Your task to perform on an android device: set the timer Image 0: 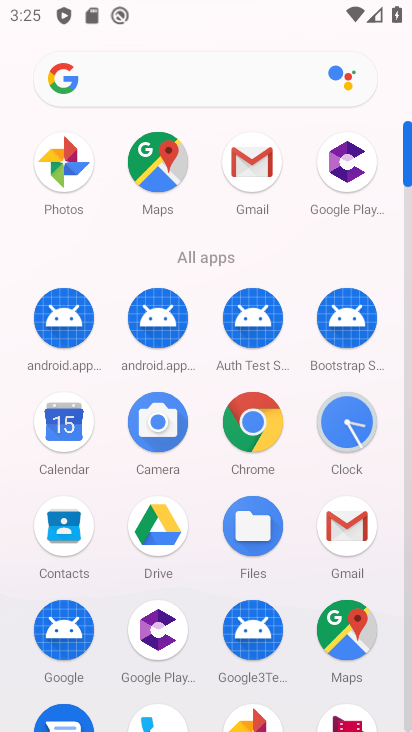
Step 0: click (357, 415)
Your task to perform on an android device: set the timer Image 1: 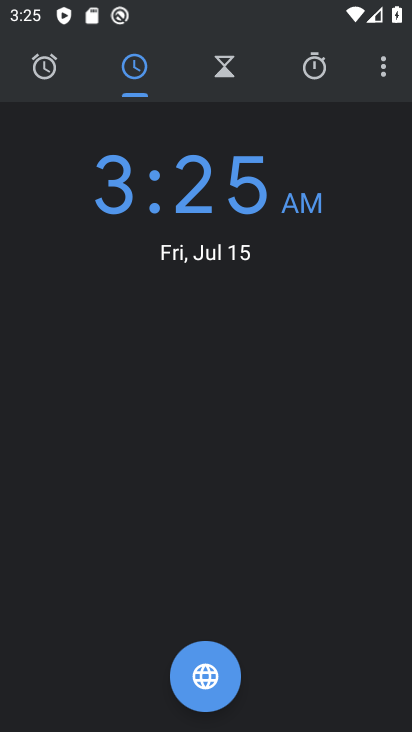
Step 1: click (233, 78)
Your task to perform on an android device: set the timer Image 2: 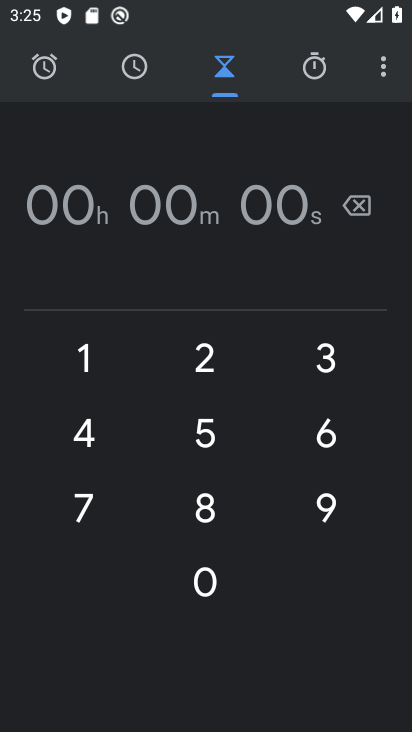
Step 2: click (89, 361)
Your task to perform on an android device: set the timer Image 3: 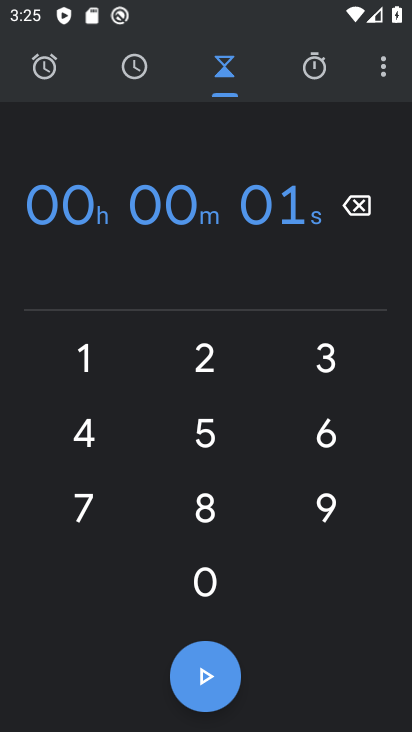
Step 3: task complete